Your task to perform on an android device: Clear the cart on bestbuy. Search for macbook pro on bestbuy, select the first entry, and add it to the cart. Image 0: 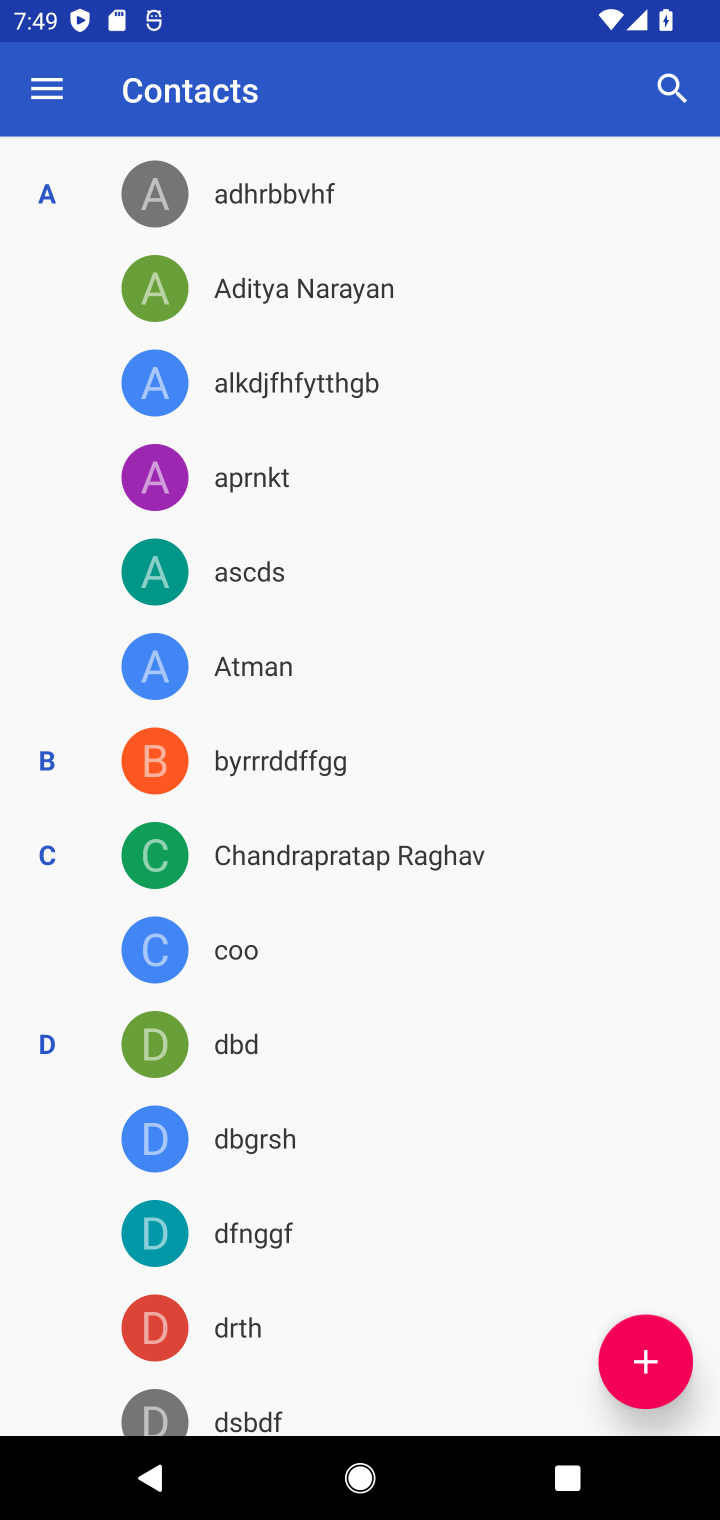
Step 0: press home button
Your task to perform on an android device: Clear the cart on bestbuy. Search for macbook pro on bestbuy, select the first entry, and add it to the cart. Image 1: 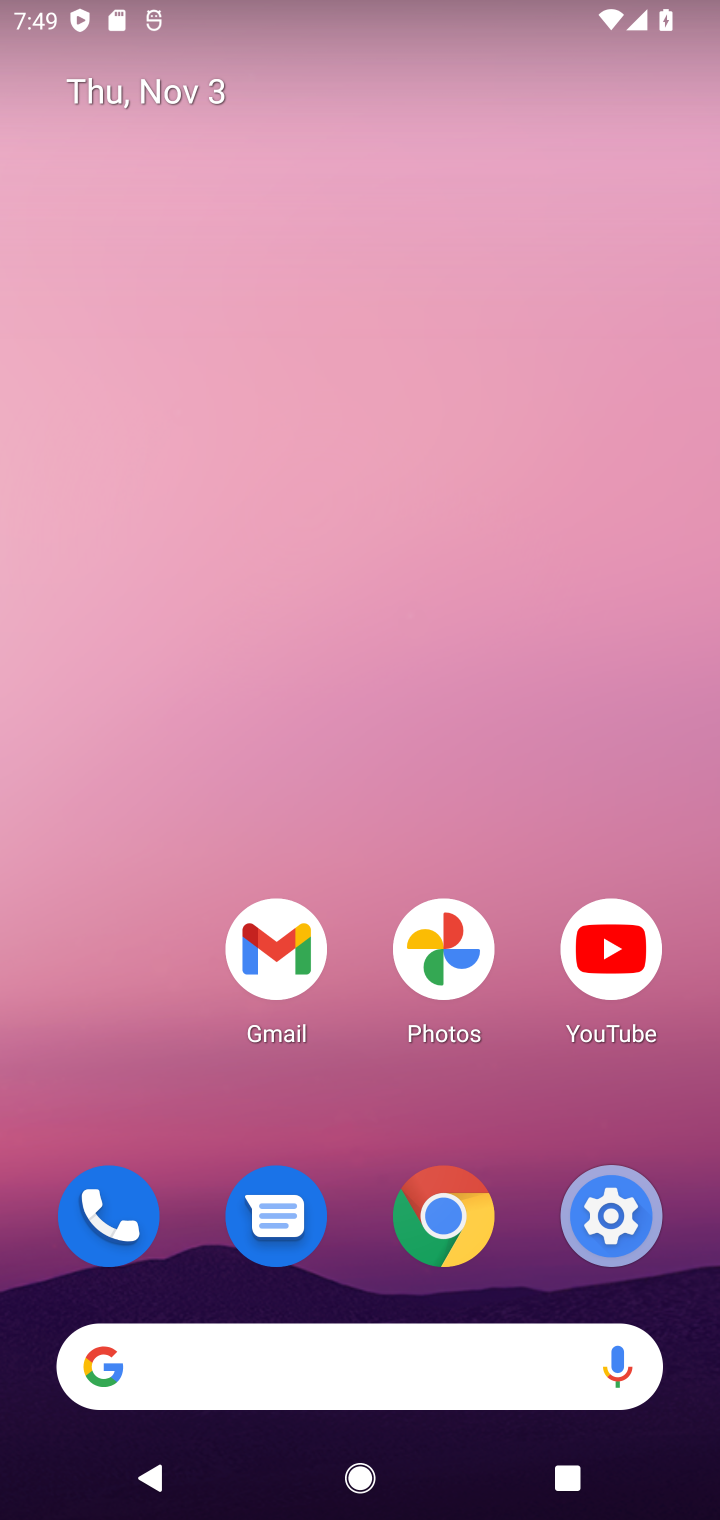
Step 1: click (436, 1180)
Your task to perform on an android device: Clear the cart on bestbuy. Search for macbook pro on bestbuy, select the first entry, and add it to the cart. Image 2: 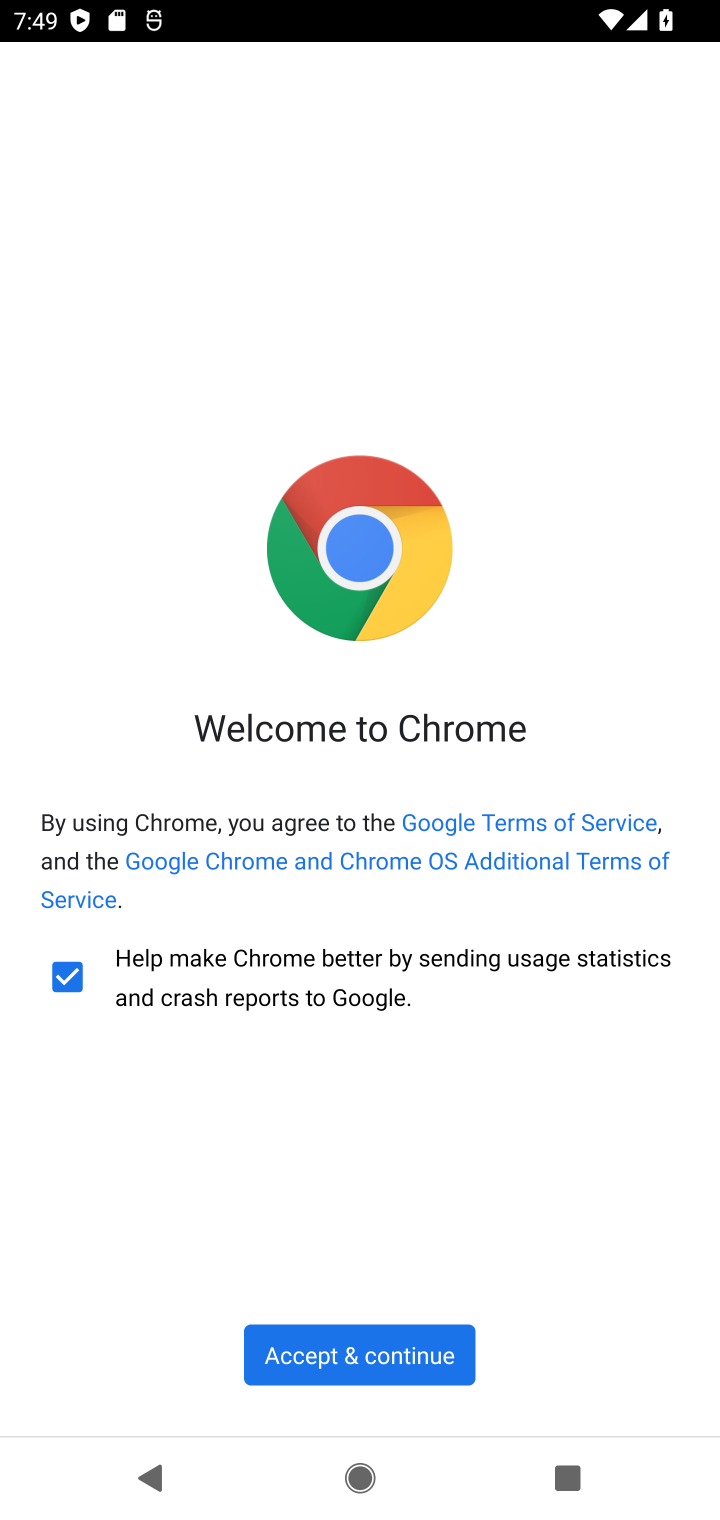
Step 2: click (315, 1306)
Your task to perform on an android device: Clear the cart on bestbuy. Search for macbook pro on bestbuy, select the first entry, and add it to the cart. Image 3: 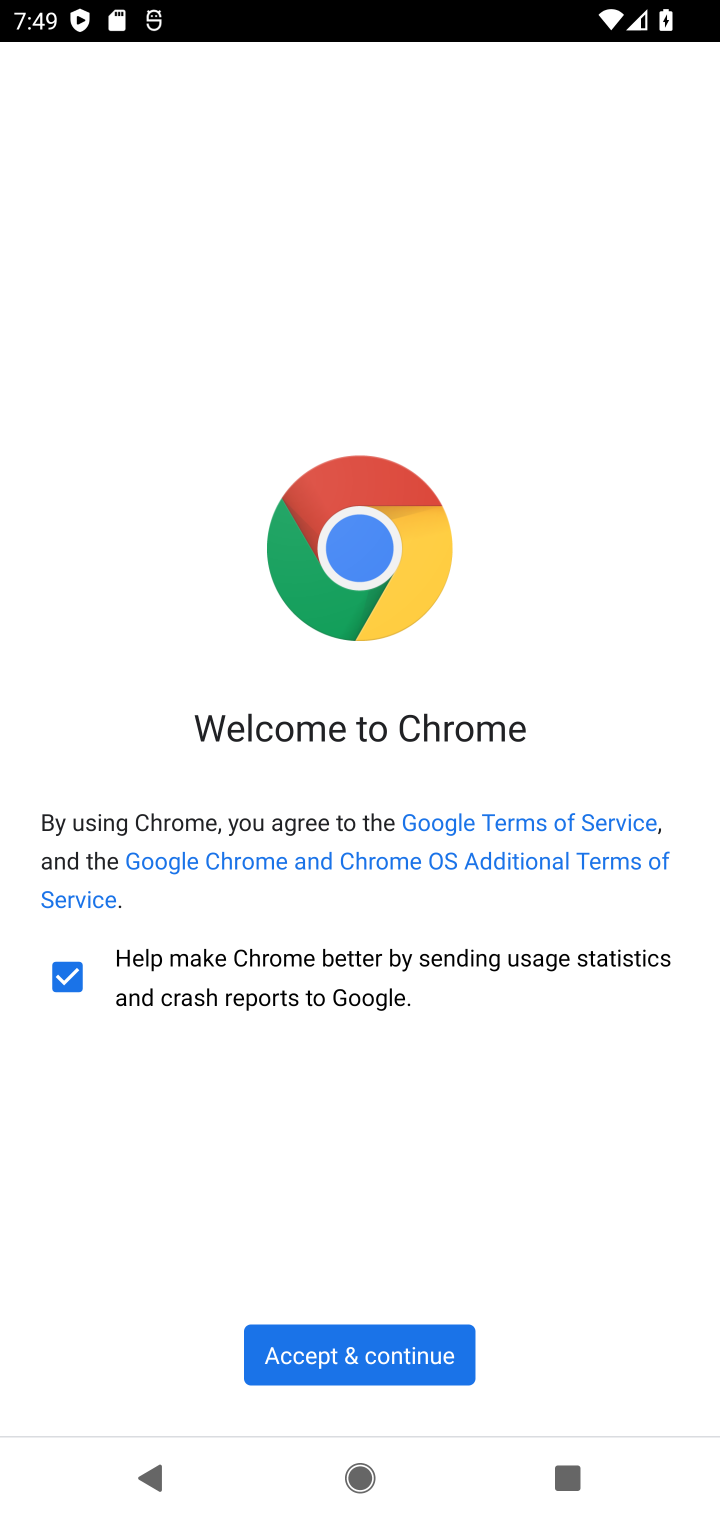
Step 3: click (316, 1353)
Your task to perform on an android device: Clear the cart on bestbuy. Search for macbook pro on bestbuy, select the first entry, and add it to the cart. Image 4: 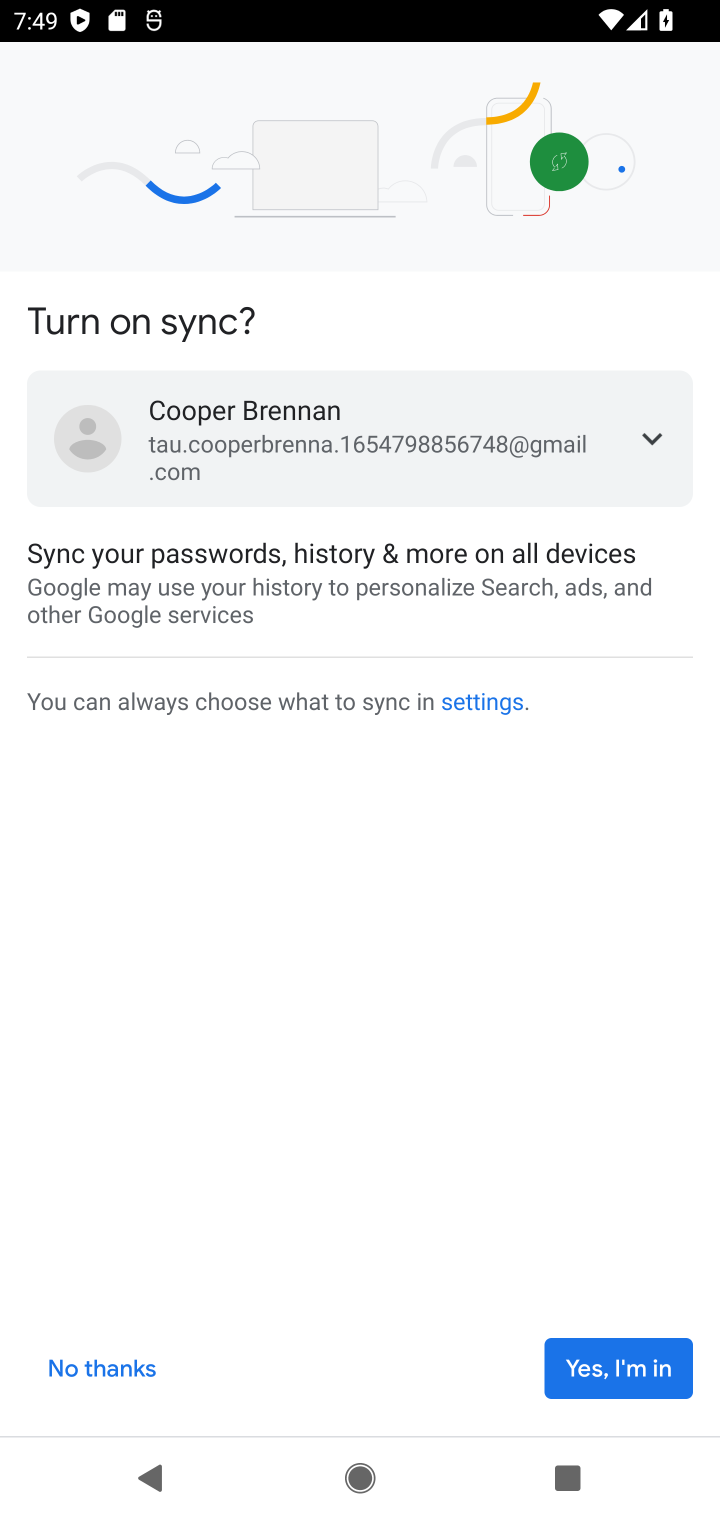
Step 4: click (621, 1376)
Your task to perform on an android device: Clear the cart on bestbuy. Search for macbook pro on bestbuy, select the first entry, and add it to the cart. Image 5: 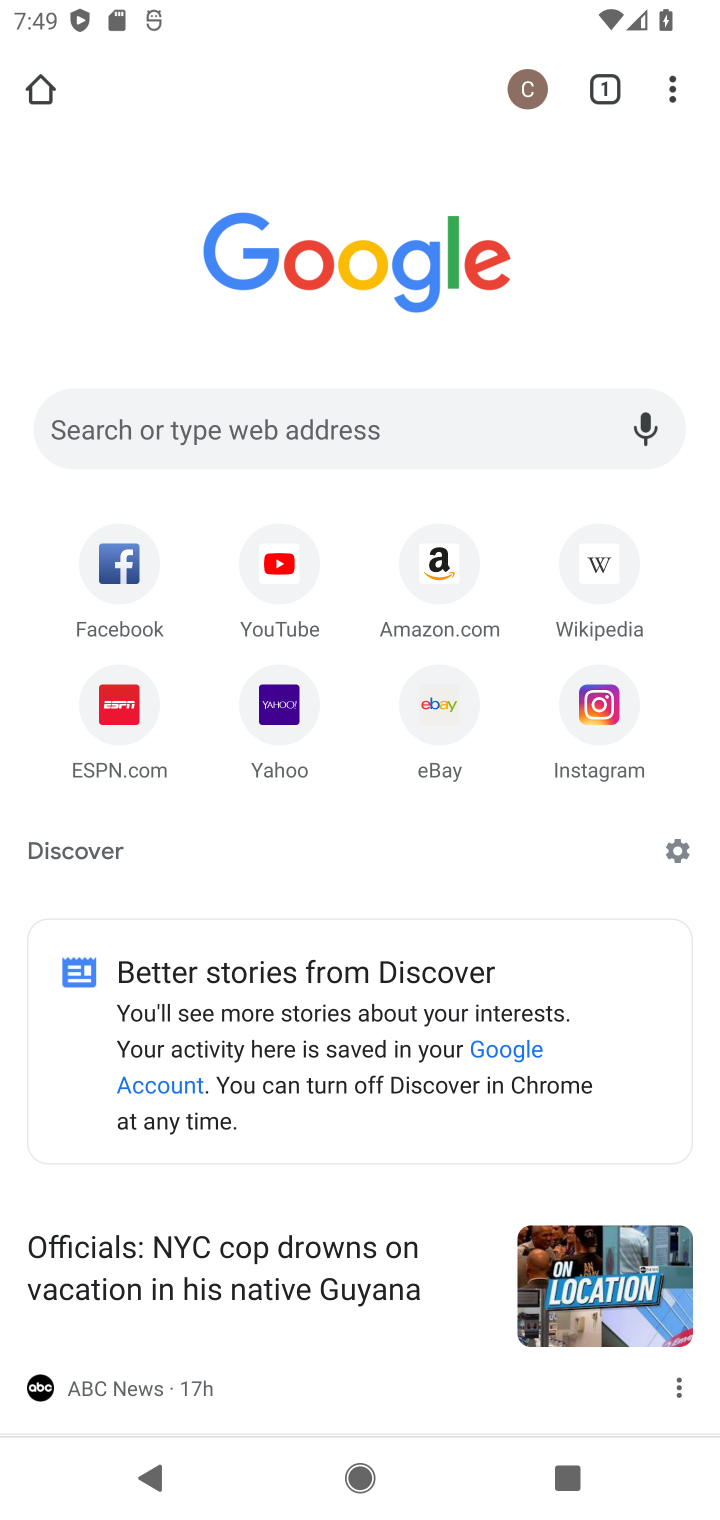
Step 5: click (297, 422)
Your task to perform on an android device: Clear the cart on bestbuy. Search for macbook pro on bestbuy, select the first entry, and add it to the cart. Image 6: 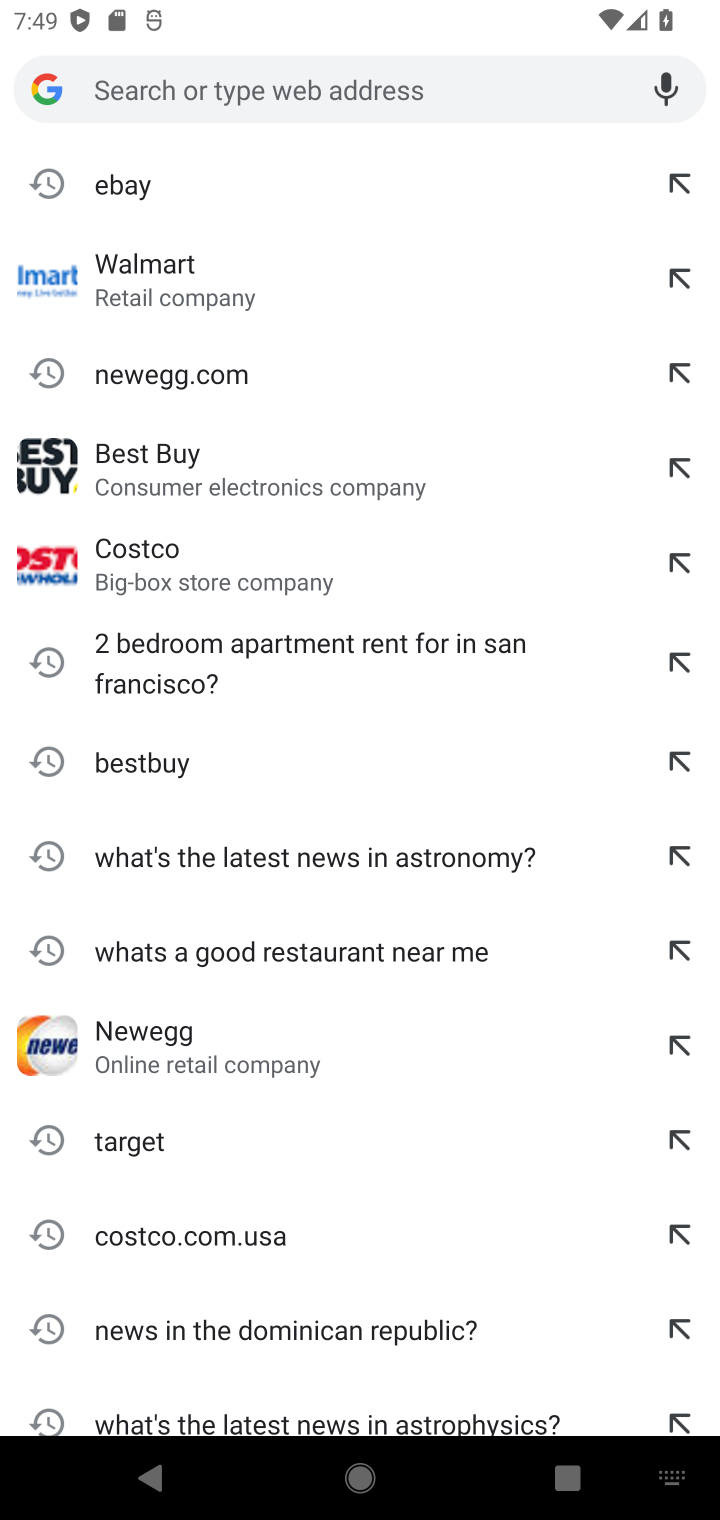
Step 6: click (141, 462)
Your task to perform on an android device: Clear the cart on bestbuy. Search for macbook pro on bestbuy, select the first entry, and add it to the cart. Image 7: 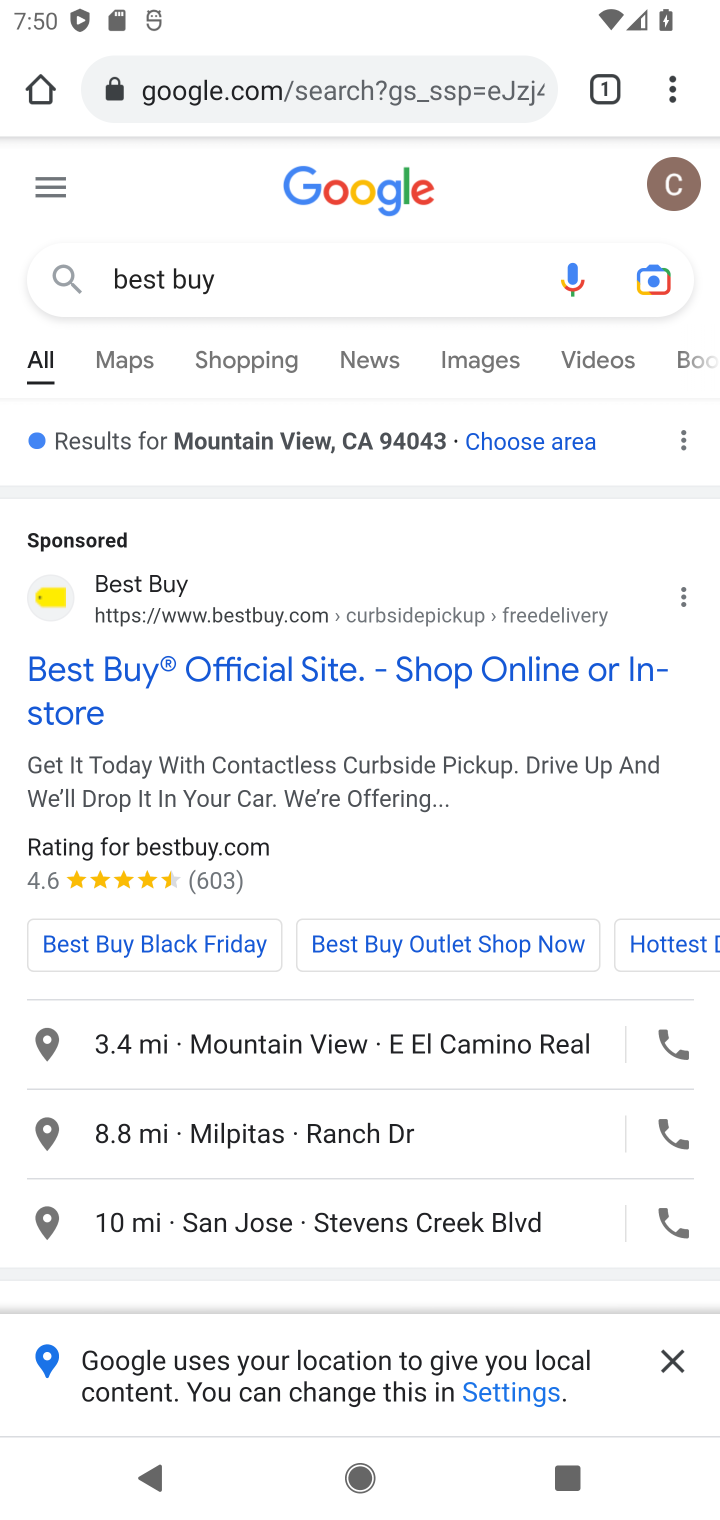
Step 7: click (136, 666)
Your task to perform on an android device: Clear the cart on bestbuy. Search for macbook pro on bestbuy, select the first entry, and add it to the cart. Image 8: 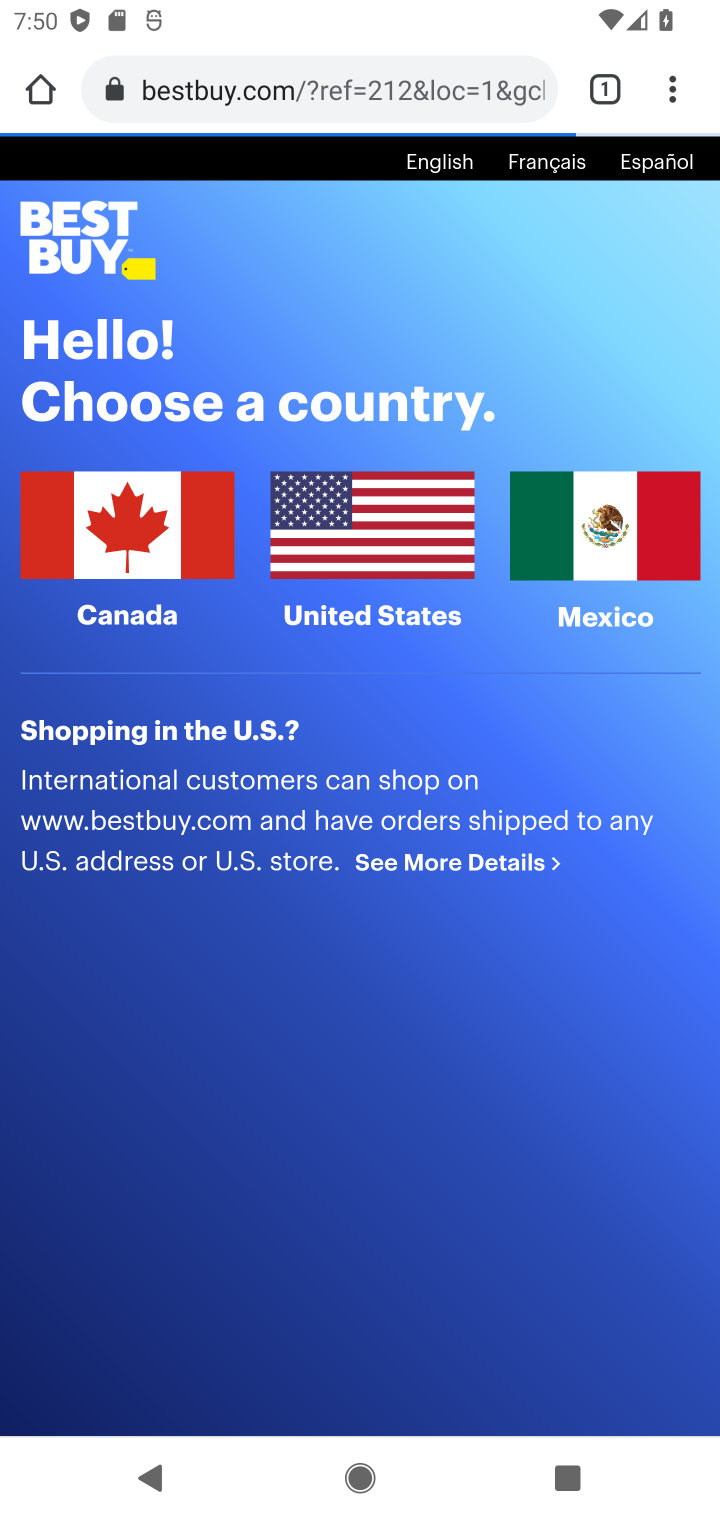
Step 8: click (331, 580)
Your task to perform on an android device: Clear the cart on bestbuy. Search for macbook pro on bestbuy, select the first entry, and add it to the cart. Image 9: 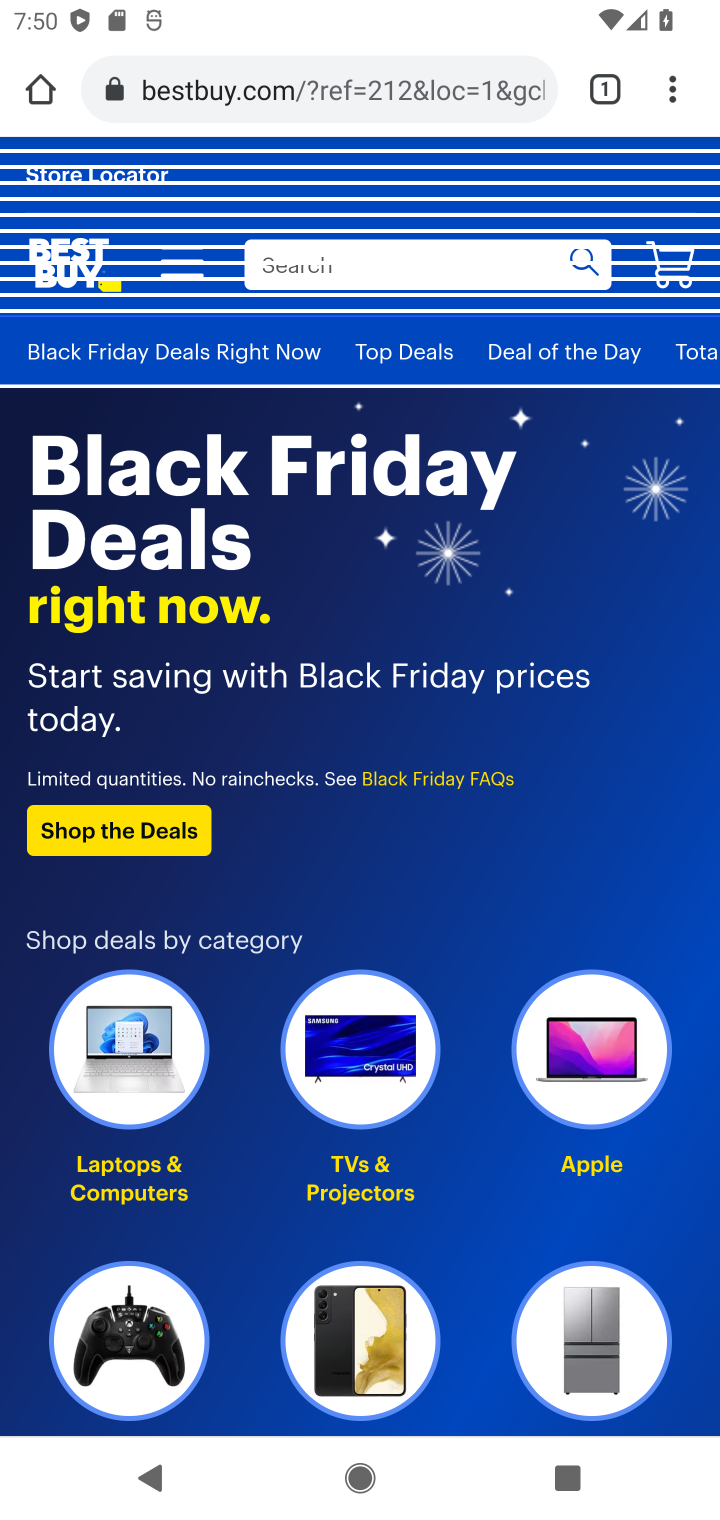
Step 9: click (350, 263)
Your task to perform on an android device: Clear the cart on bestbuy. Search for macbook pro on bestbuy, select the first entry, and add it to the cart. Image 10: 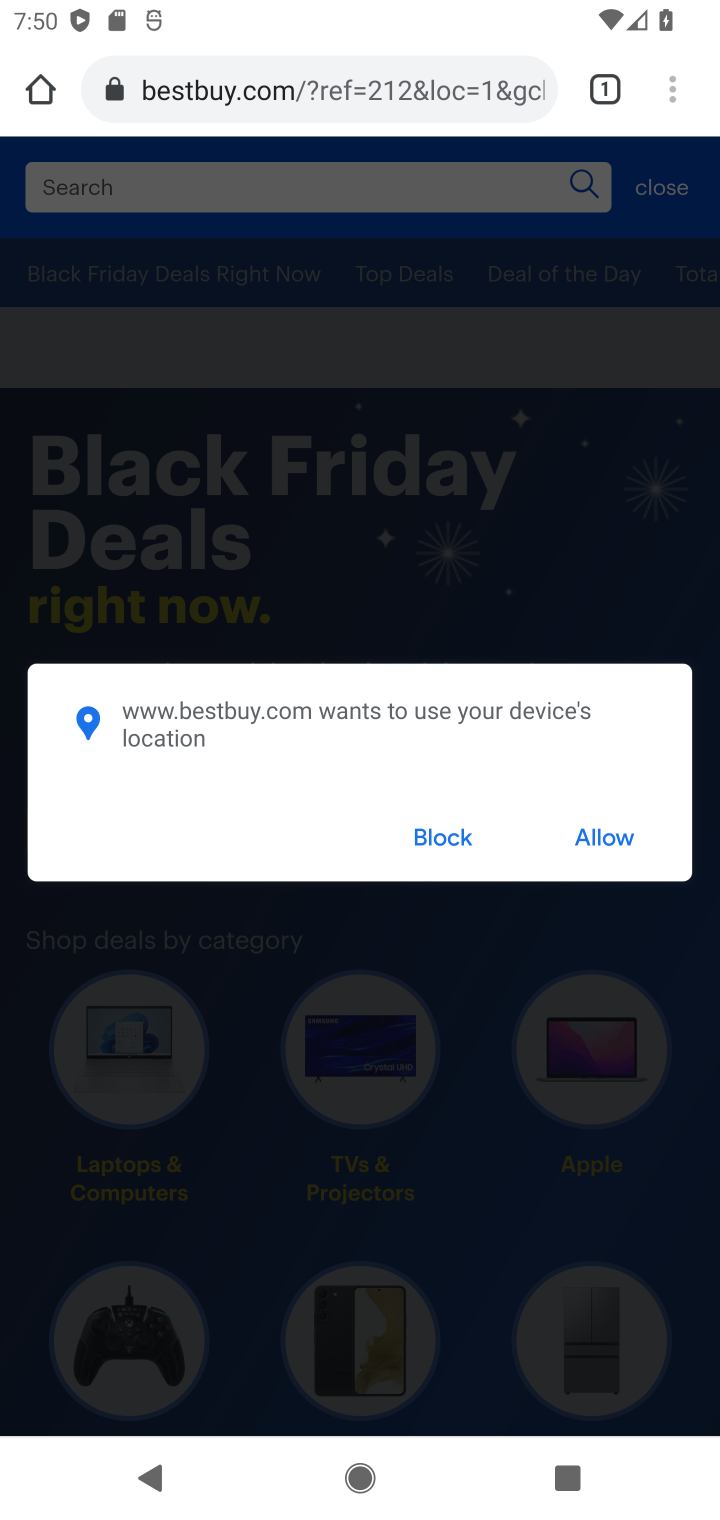
Step 10: type "macbook pro"
Your task to perform on an android device: Clear the cart on bestbuy. Search for macbook pro on bestbuy, select the first entry, and add it to the cart. Image 11: 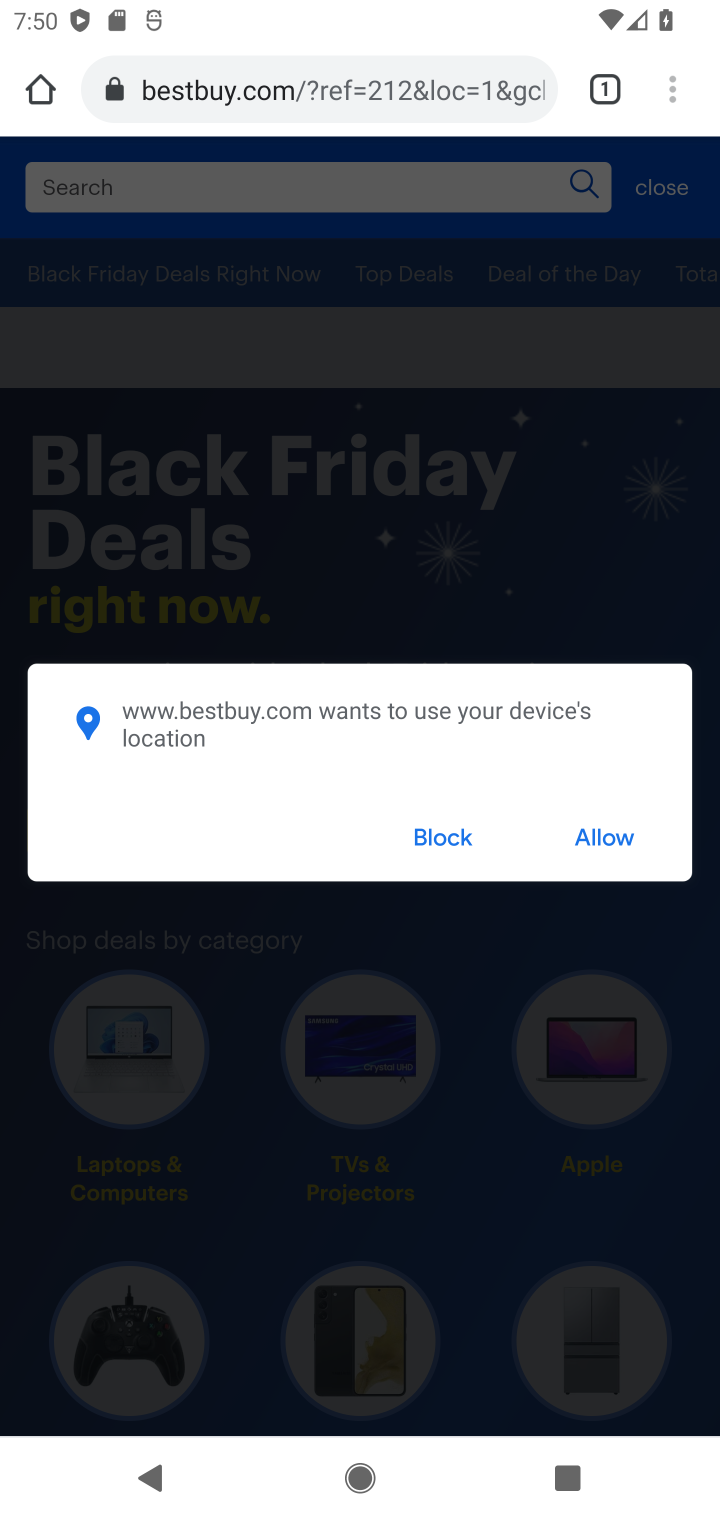
Step 11: click (440, 833)
Your task to perform on an android device: Clear the cart on bestbuy. Search for macbook pro on bestbuy, select the first entry, and add it to the cart. Image 12: 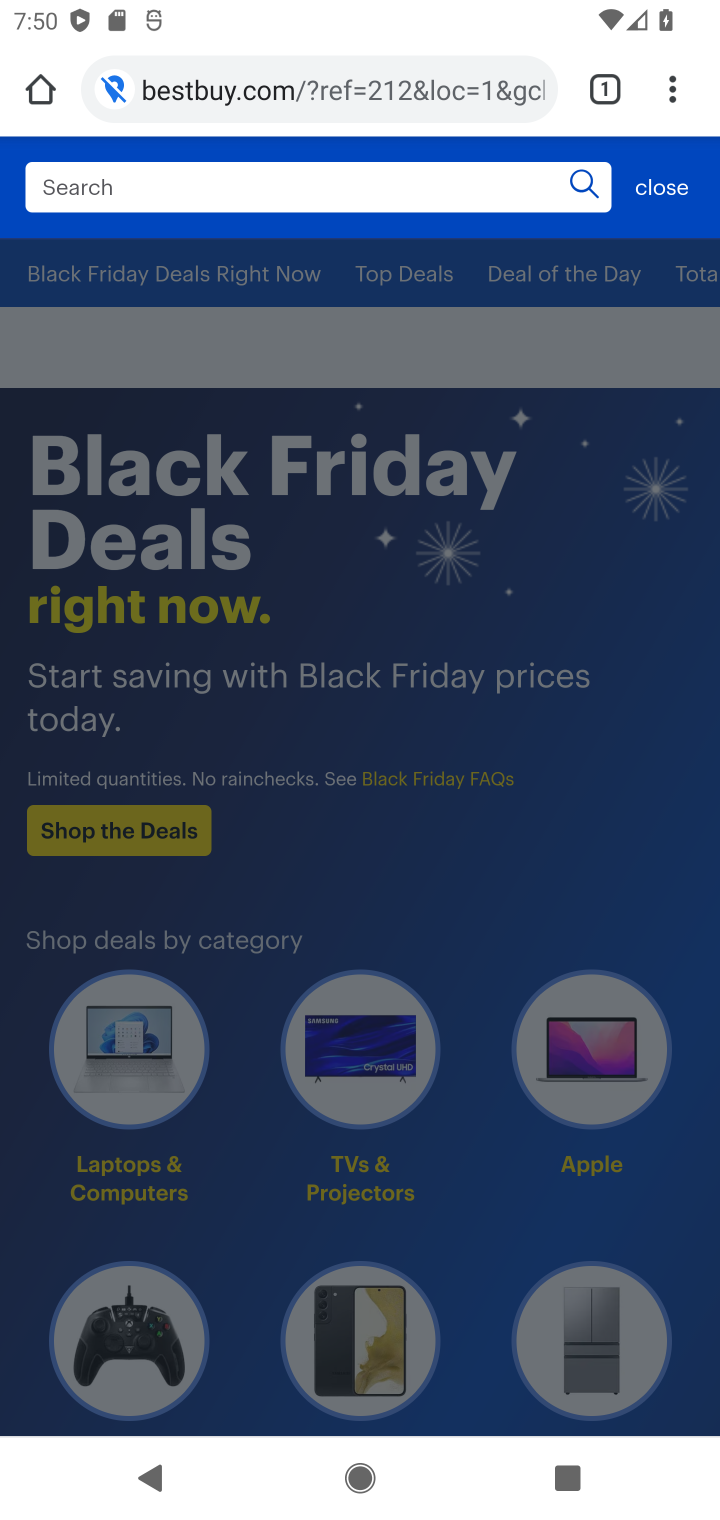
Step 12: click (210, 195)
Your task to perform on an android device: Clear the cart on bestbuy. Search for macbook pro on bestbuy, select the first entry, and add it to the cart. Image 13: 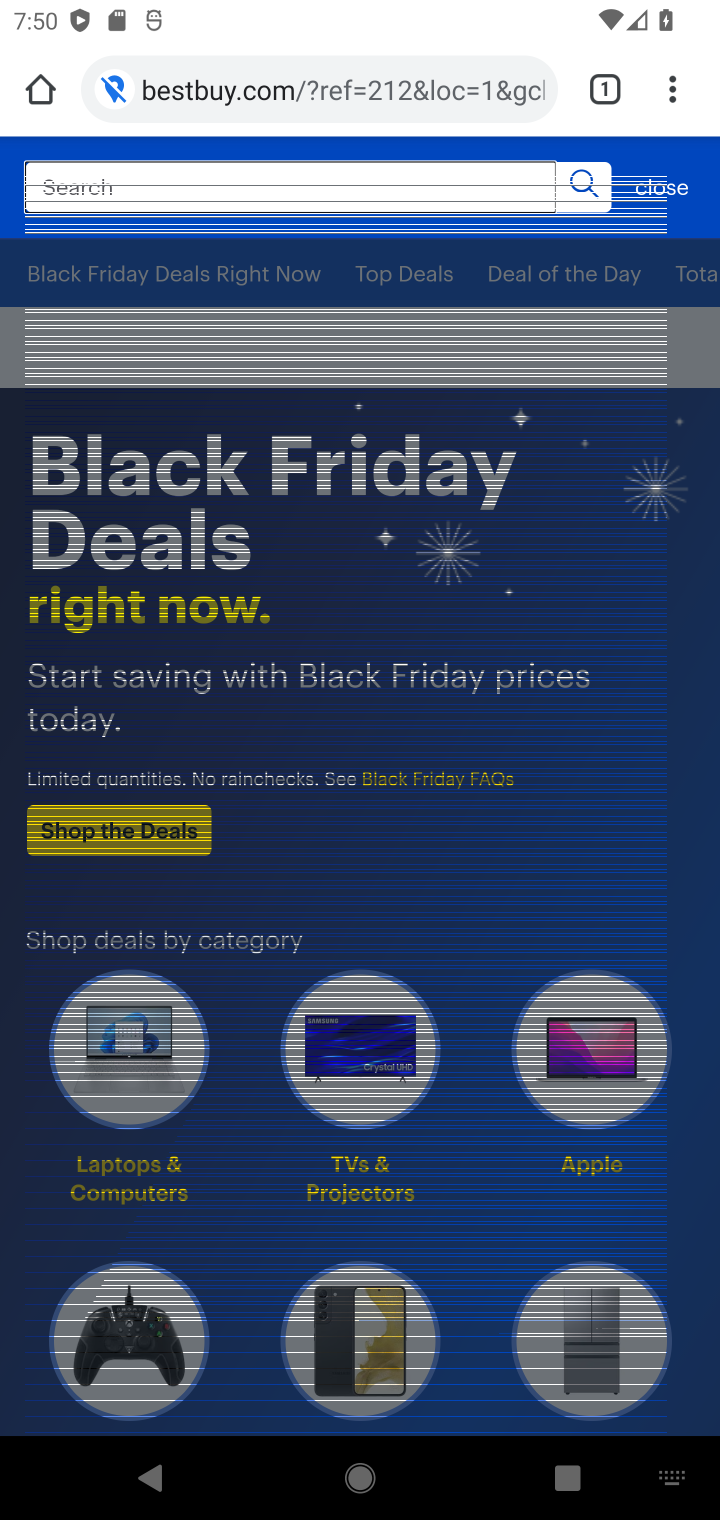
Step 13: type "macbook pro"
Your task to perform on an android device: Clear the cart on bestbuy. Search for macbook pro on bestbuy, select the first entry, and add it to the cart. Image 14: 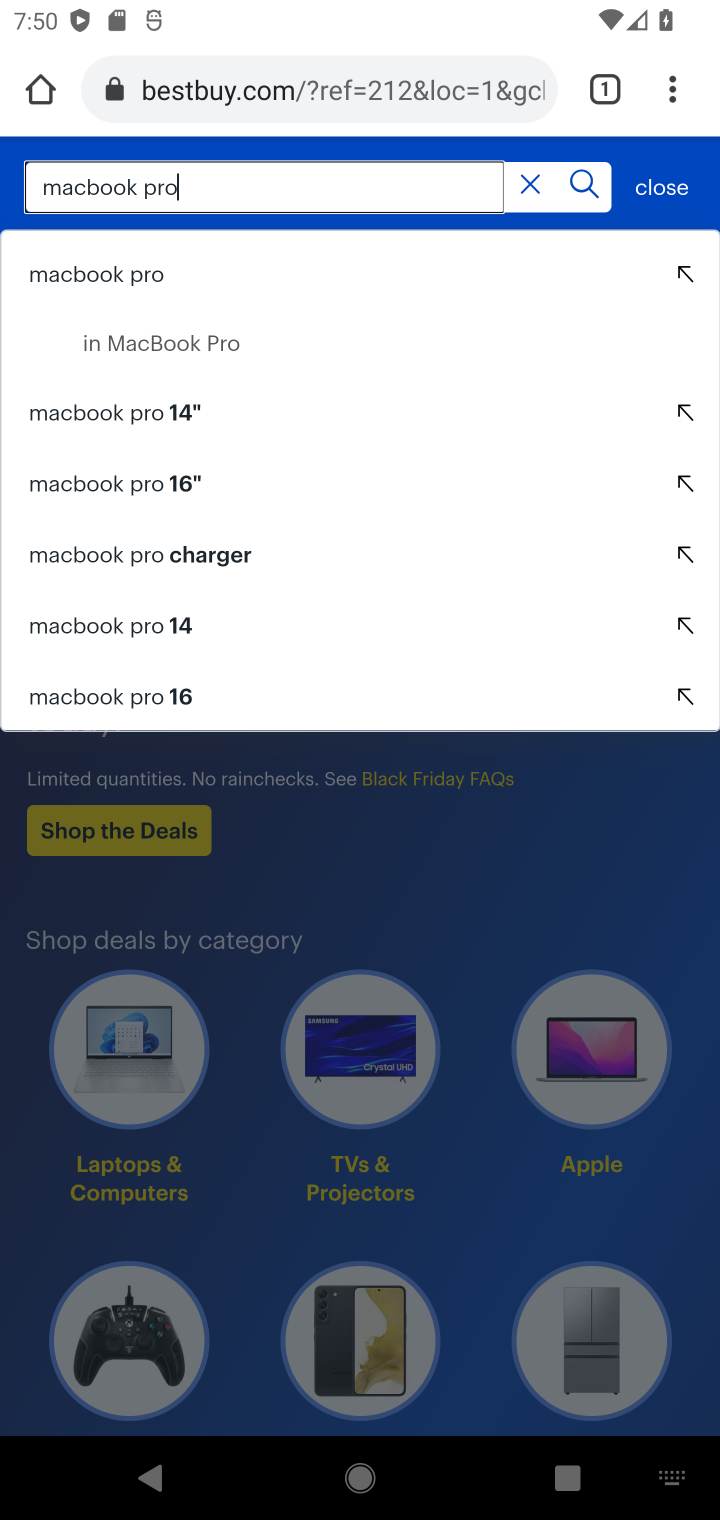
Step 14: type ""
Your task to perform on an android device: Clear the cart on bestbuy. Search for macbook pro on bestbuy, select the first entry, and add it to the cart. Image 15: 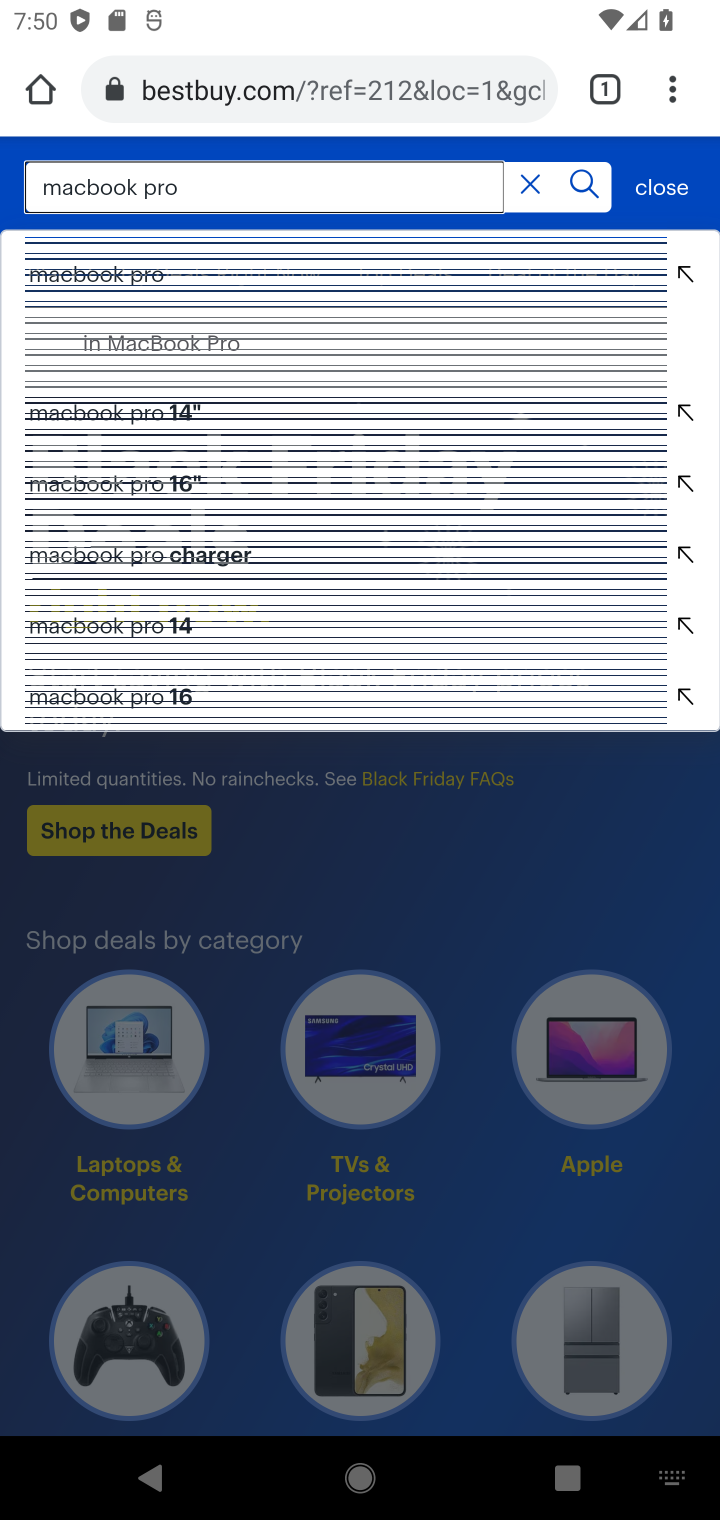
Step 15: press enter
Your task to perform on an android device: Clear the cart on bestbuy. Search for macbook pro on bestbuy, select the first entry, and add it to the cart. Image 16: 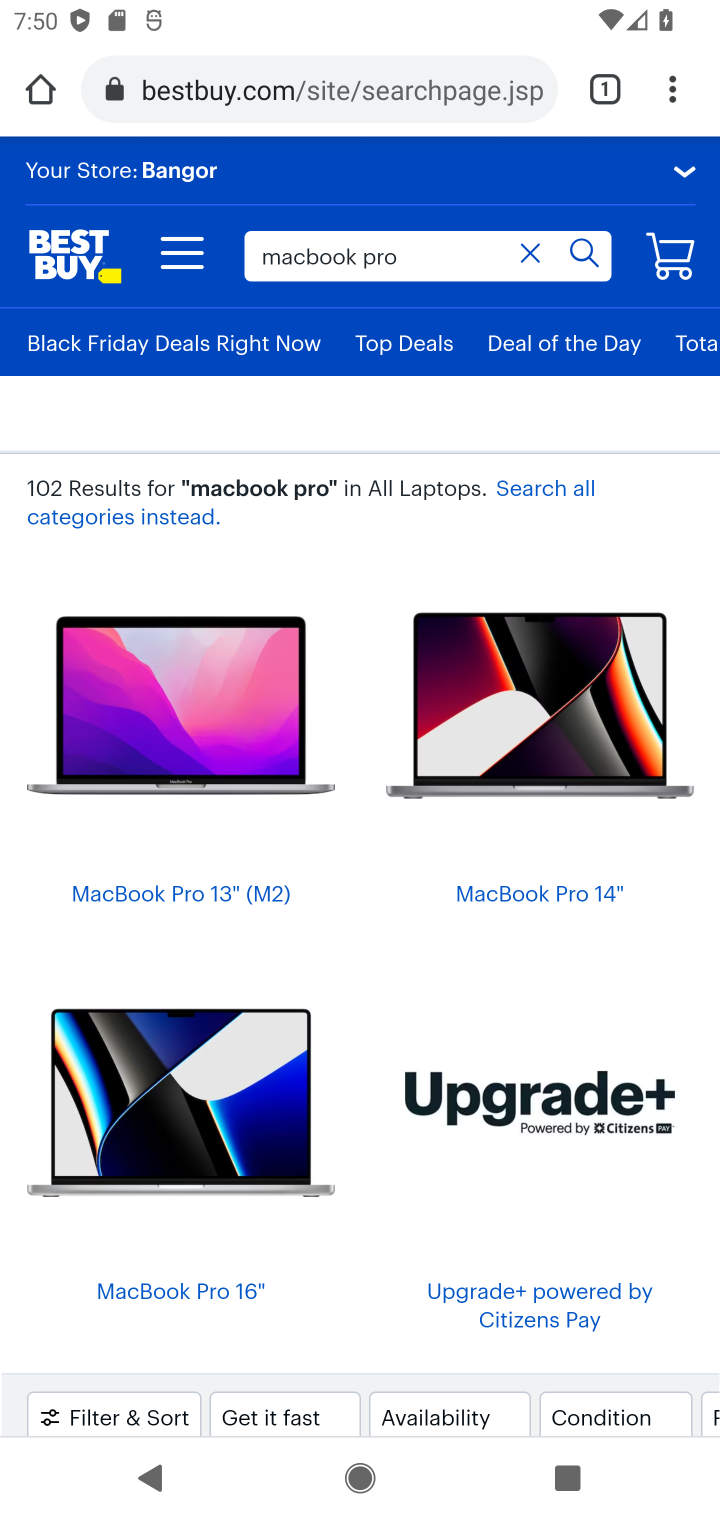
Step 16: drag from (376, 1316) to (303, 571)
Your task to perform on an android device: Clear the cart on bestbuy. Search for macbook pro on bestbuy, select the first entry, and add it to the cart. Image 17: 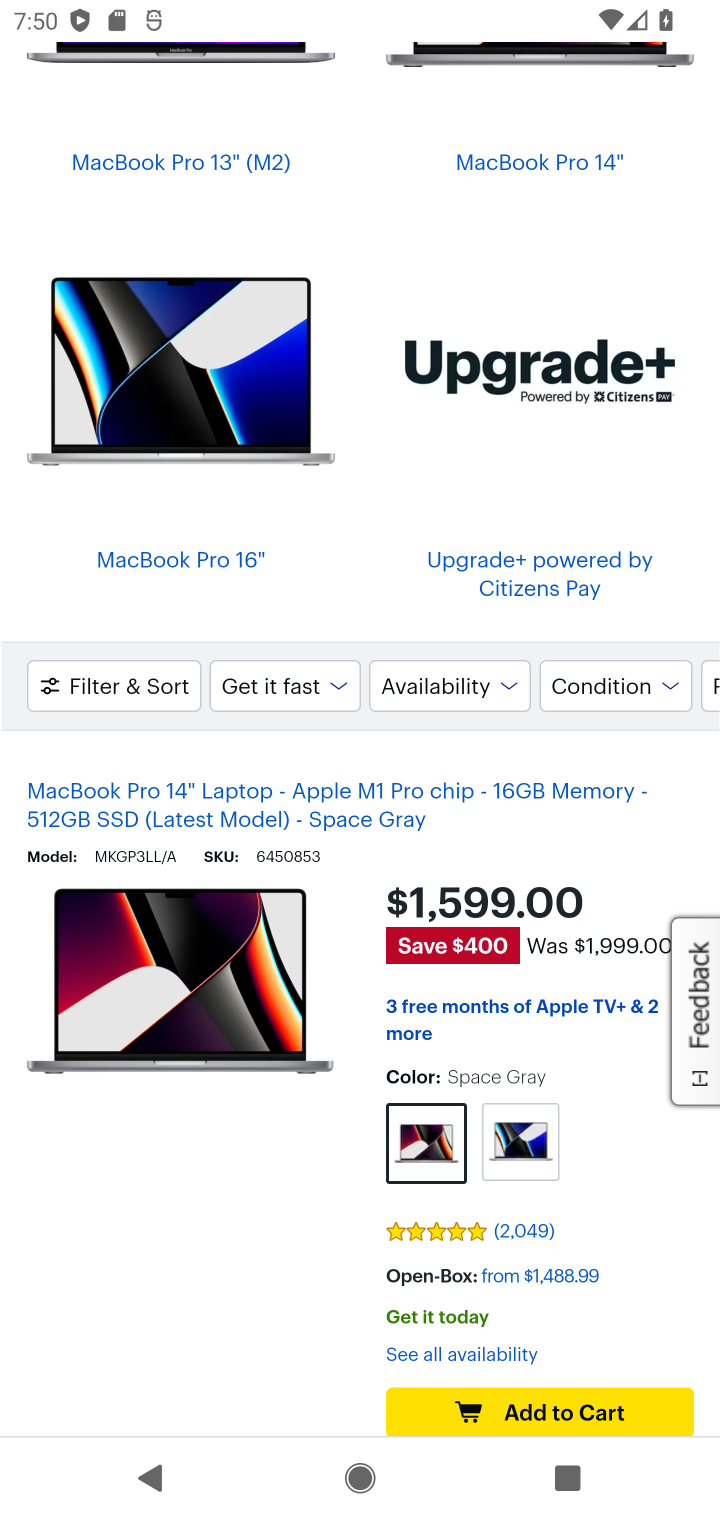
Step 17: click (159, 1061)
Your task to perform on an android device: Clear the cart on bestbuy. Search for macbook pro on bestbuy, select the first entry, and add it to the cart. Image 18: 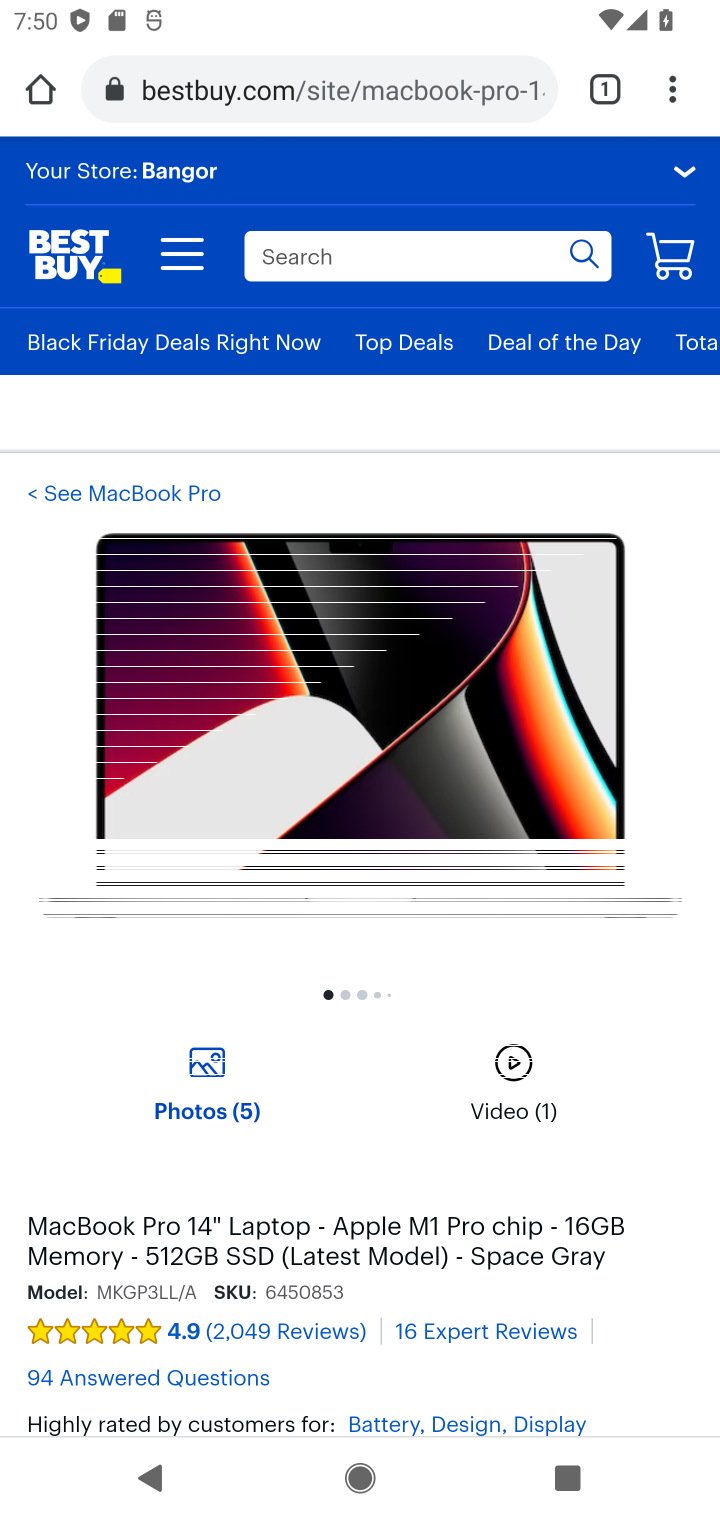
Step 18: drag from (377, 1361) to (295, 294)
Your task to perform on an android device: Clear the cart on bestbuy. Search for macbook pro on bestbuy, select the first entry, and add it to the cart. Image 19: 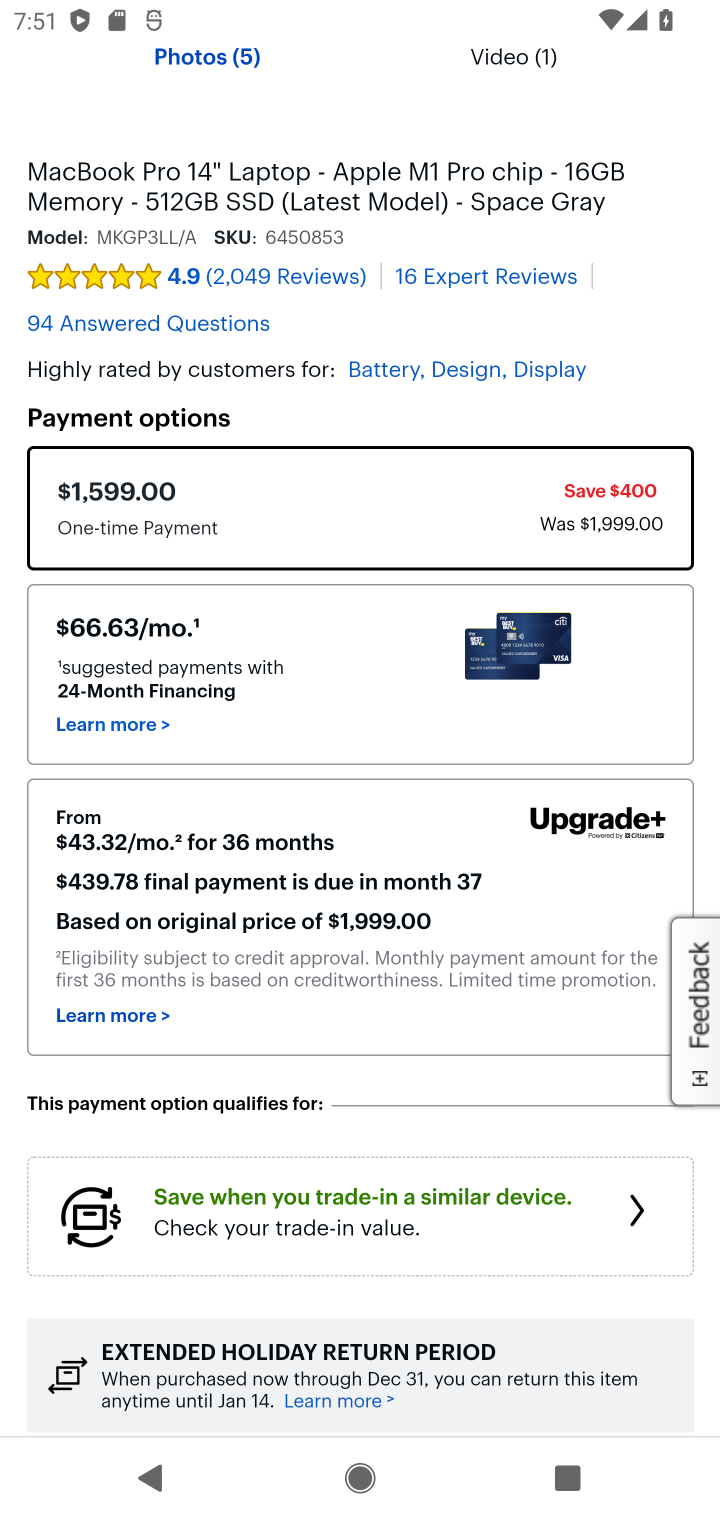
Step 19: drag from (364, 1227) to (349, 415)
Your task to perform on an android device: Clear the cart on bestbuy. Search for macbook pro on bestbuy, select the first entry, and add it to the cart. Image 20: 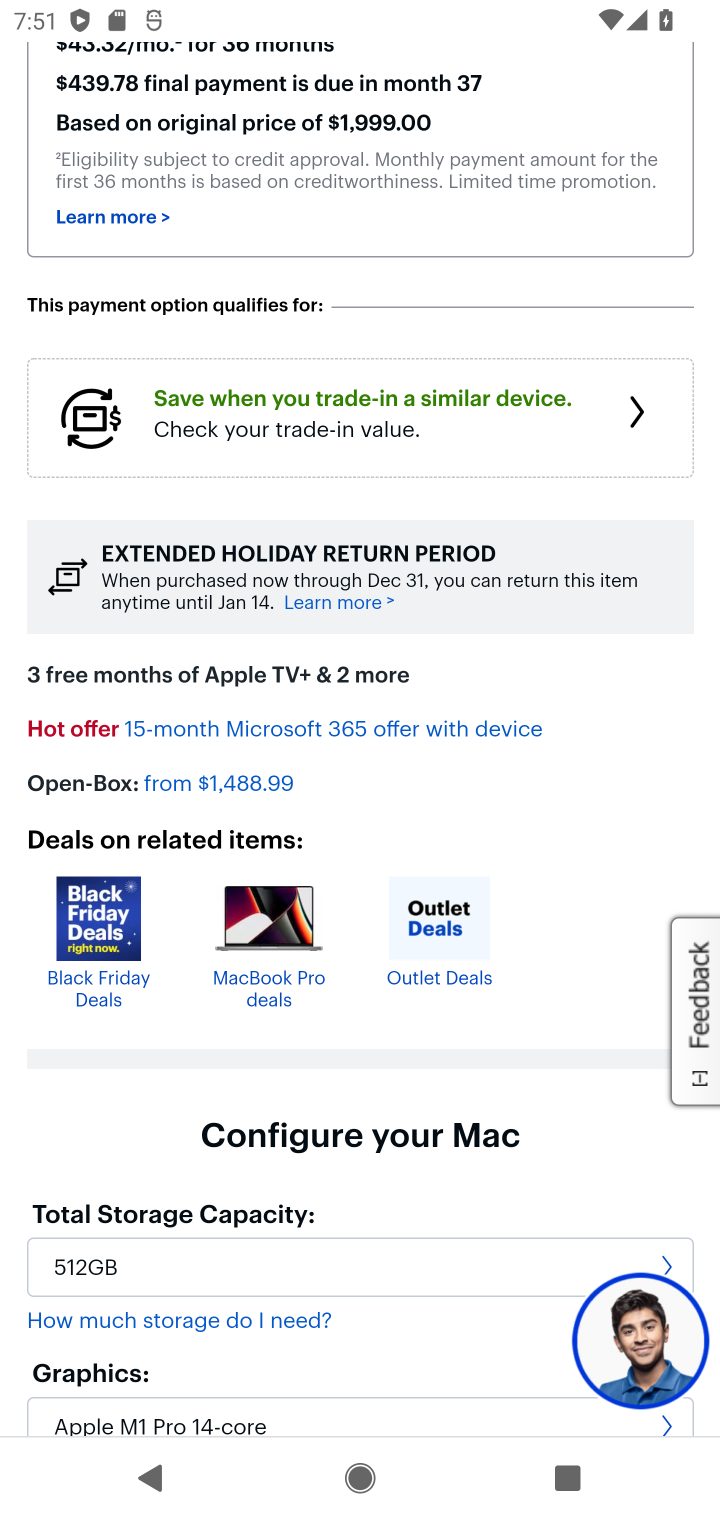
Step 20: drag from (312, 1114) to (306, 90)
Your task to perform on an android device: Clear the cart on bestbuy. Search for macbook pro on bestbuy, select the first entry, and add it to the cart. Image 21: 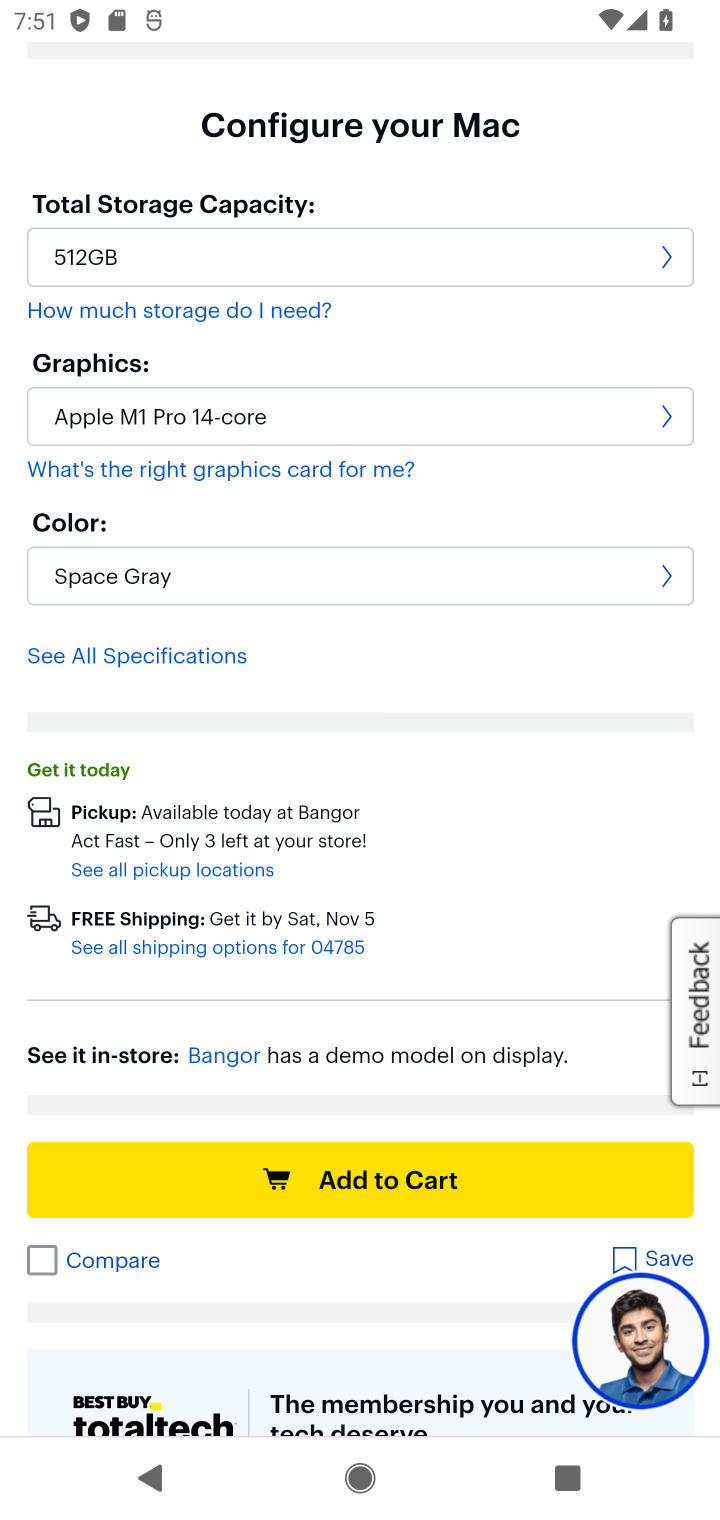
Step 21: click (381, 1193)
Your task to perform on an android device: Clear the cart on bestbuy. Search for macbook pro on bestbuy, select the first entry, and add it to the cart. Image 22: 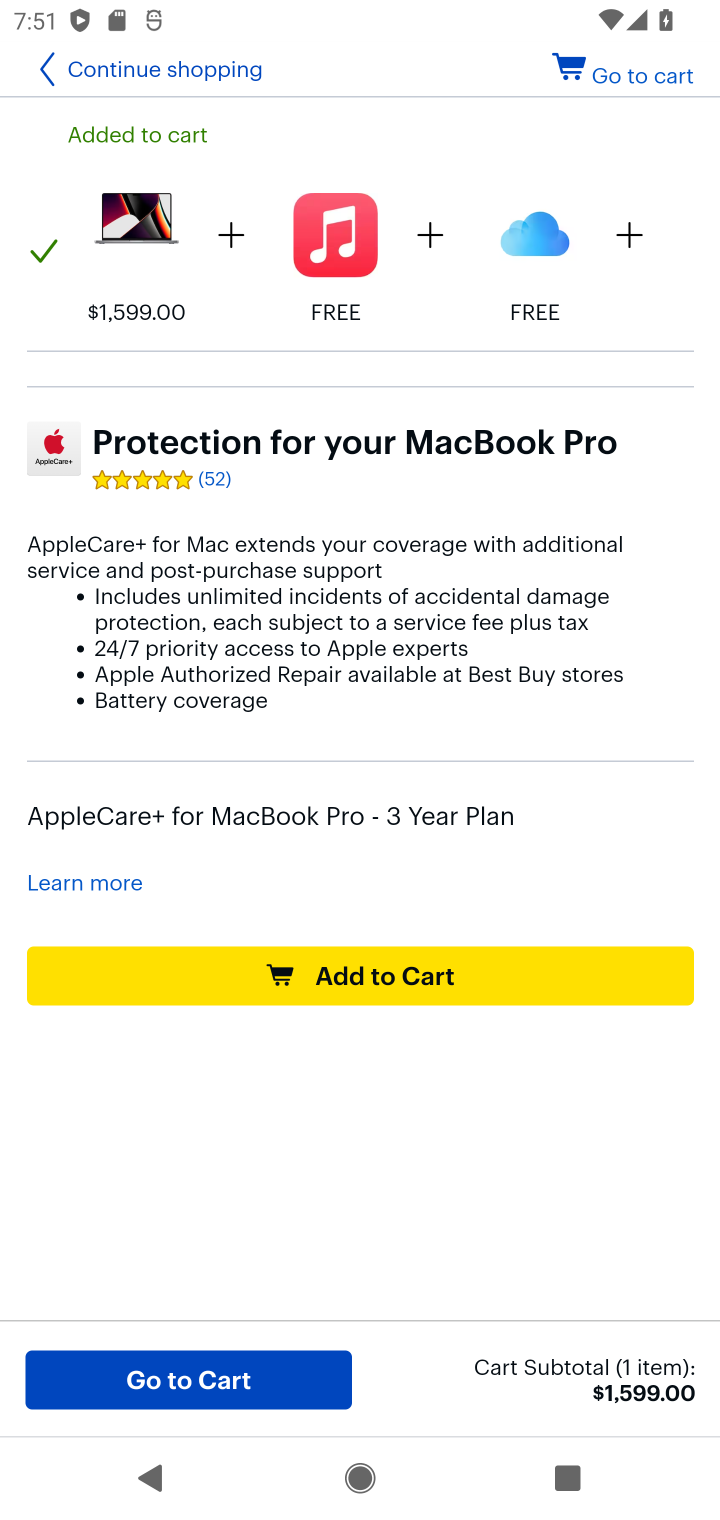
Step 22: task complete